Your task to perform on an android device: Open maps Image 0: 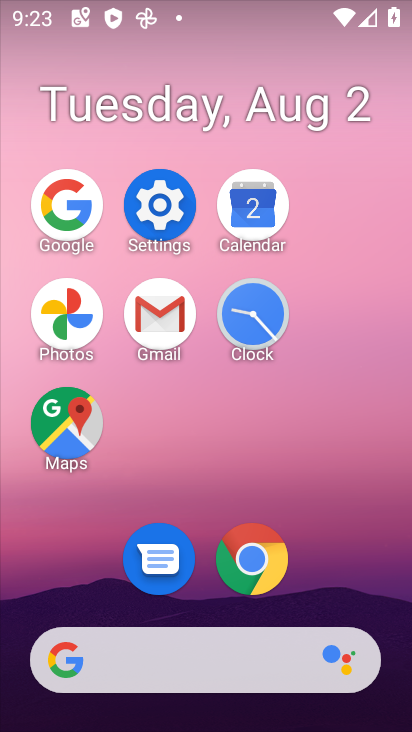
Step 0: click (44, 426)
Your task to perform on an android device: Open maps Image 1: 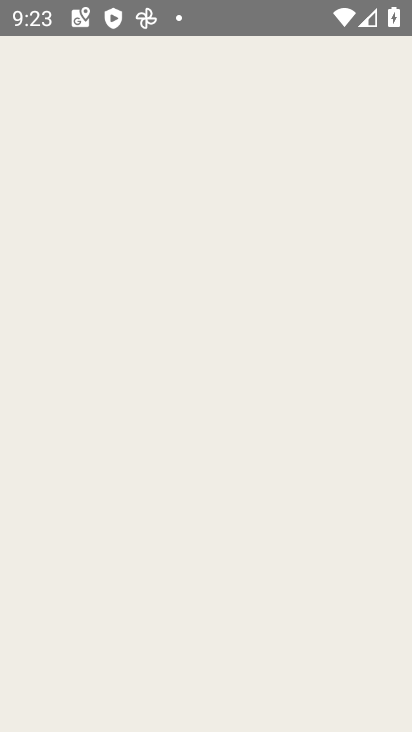
Step 1: task complete